Your task to perform on an android device: all mails in gmail Image 0: 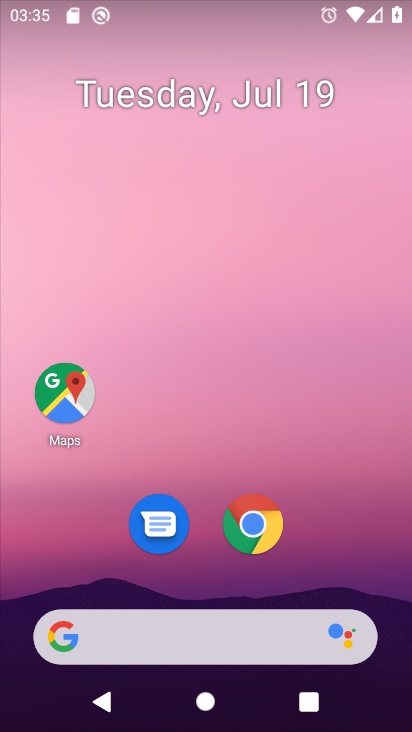
Step 0: drag from (215, 447) to (203, 26)
Your task to perform on an android device: all mails in gmail Image 1: 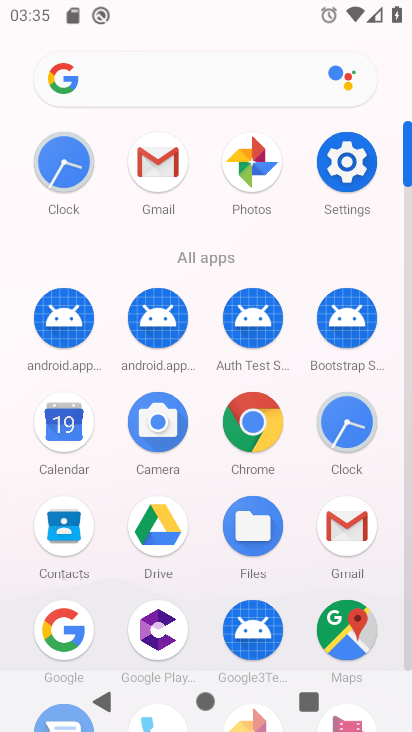
Step 1: click (160, 160)
Your task to perform on an android device: all mails in gmail Image 2: 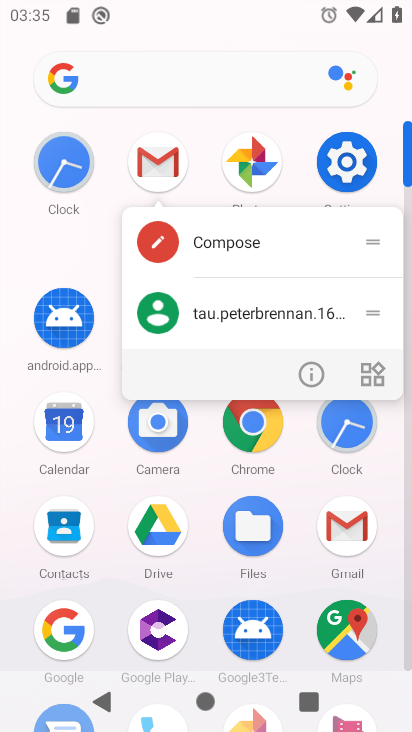
Step 2: click (160, 158)
Your task to perform on an android device: all mails in gmail Image 3: 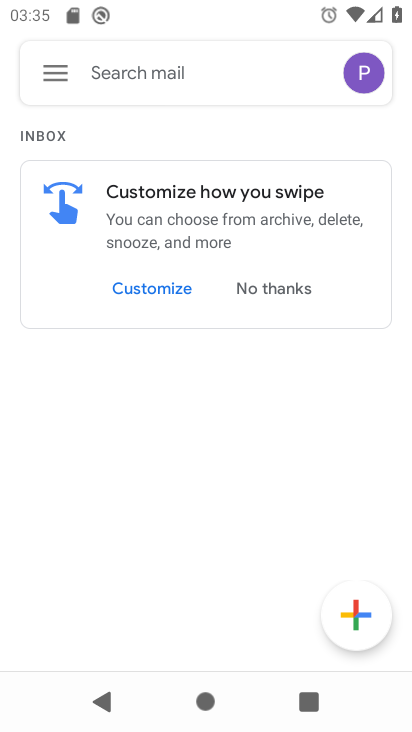
Step 3: click (55, 69)
Your task to perform on an android device: all mails in gmail Image 4: 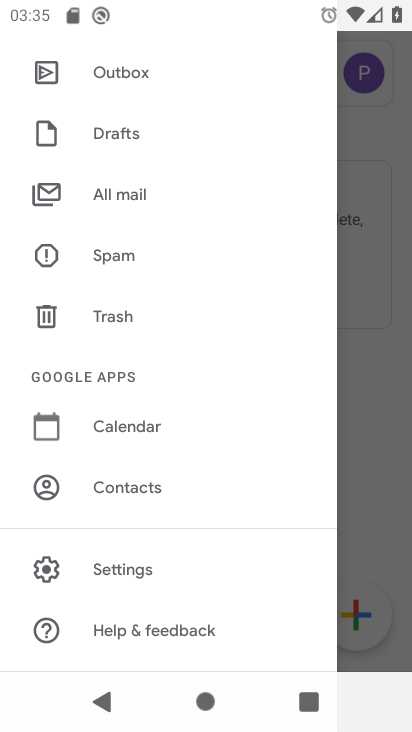
Step 4: click (118, 184)
Your task to perform on an android device: all mails in gmail Image 5: 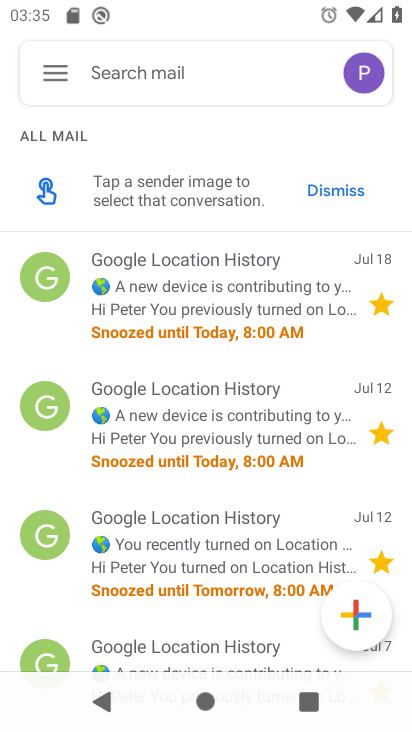
Step 5: task complete